Your task to perform on an android device: Open Chrome and go to the settings page Image 0: 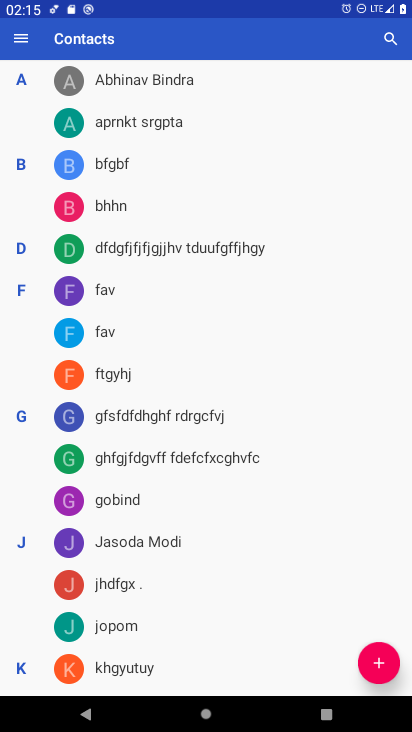
Step 0: press home button
Your task to perform on an android device: Open Chrome and go to the settings page Image 1: 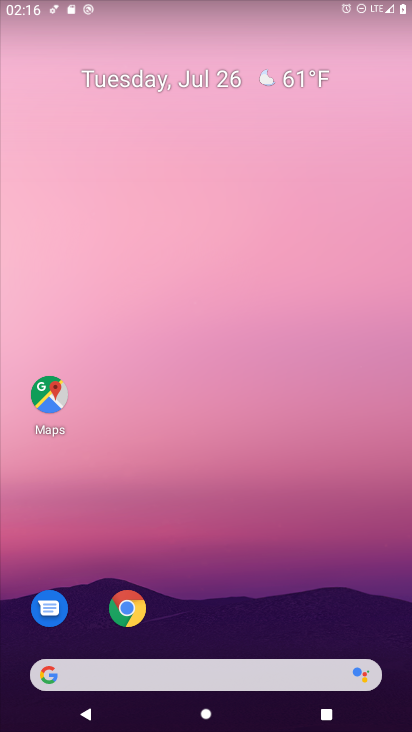
Step 1: click (122, 599)
Your task to perform on an android device: Open Chrome and go to the settings page Image 2: 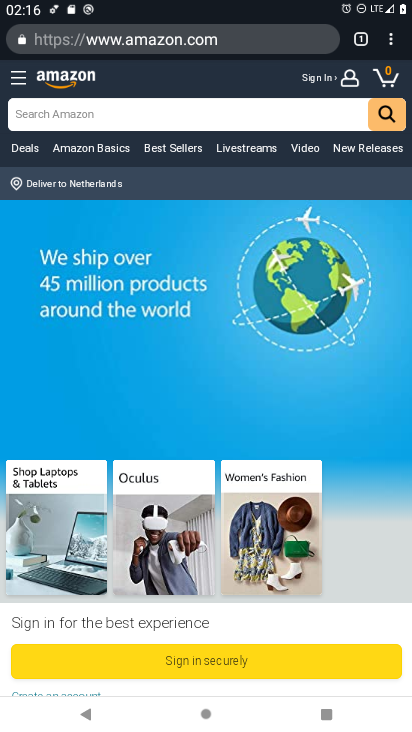
Step 2: click (385, 38)
Your task to perform on an android device: Open Chrome and go to the settings page Image 3: 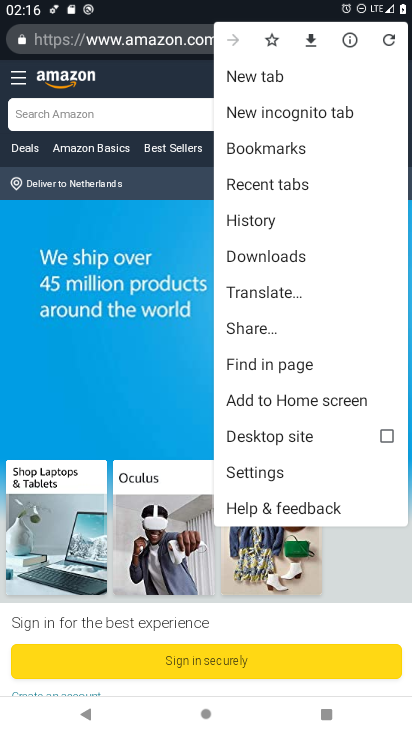
Step 3: click (258, 466)
Your task to perform on an android device: Open Chrome and go to the settings page Image 4: 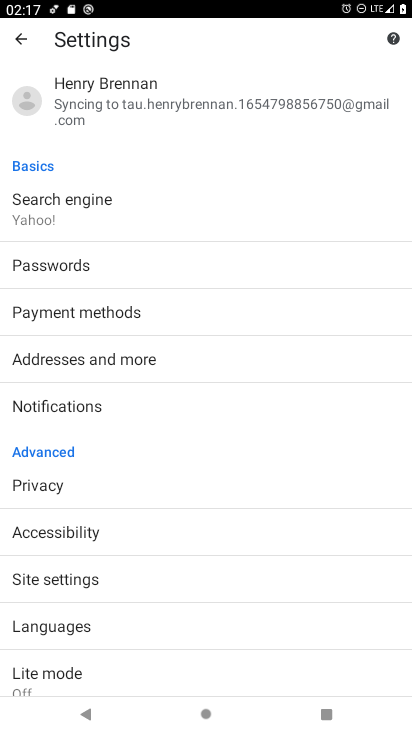
Step 4: task complete